Your task to perform on an android device: stop showing notifications on the lock screen Image 0: 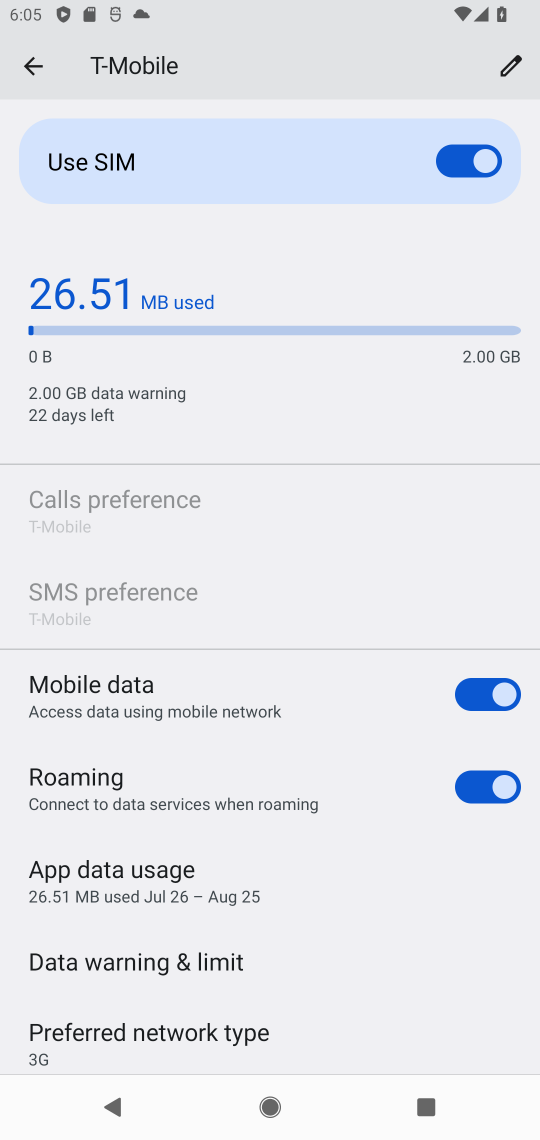
Step 0: press home button
Your task to perform on an android device: stop showing notifications on the lock screen Image 1: 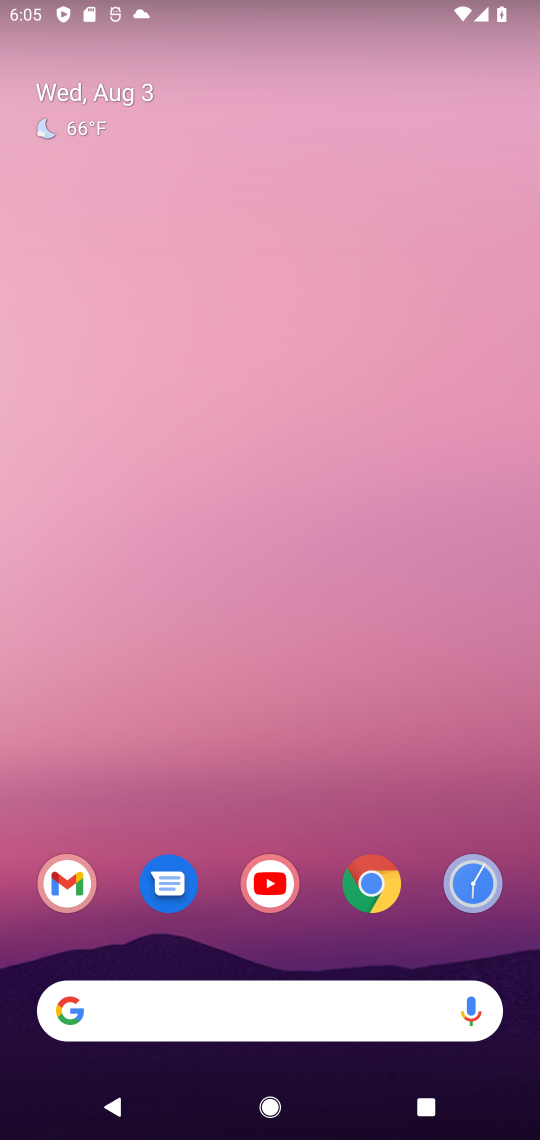
Step 1: drag from (228, 986) to (242, 353)
Your task to perform on an android device: stop showing notifications on the lock screen Image 2: 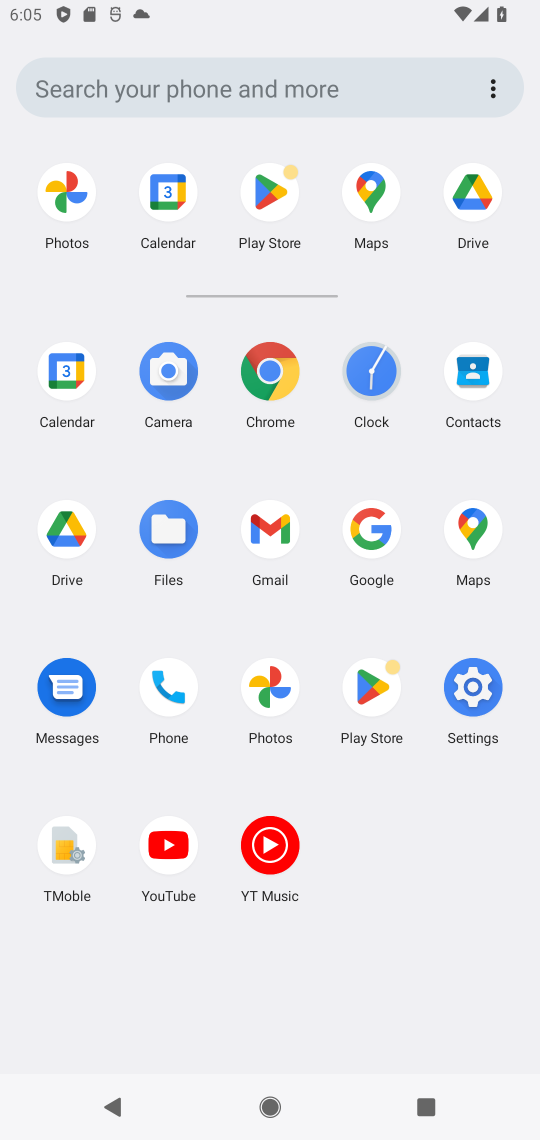
Step 2: click (451, 688)
Your task to perform on an android device: stop showing notifications on the lock screen Image 3: 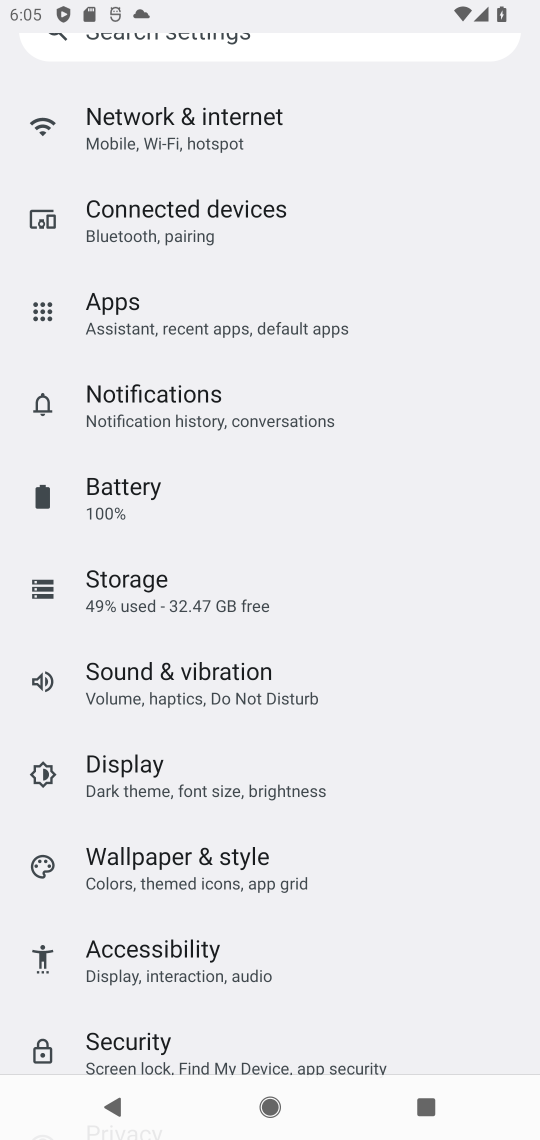
Step 3: drag from (252, 102) to (283, 639)
Your task to perform on an android device: stop showing notifications on the lock screen Image 4: 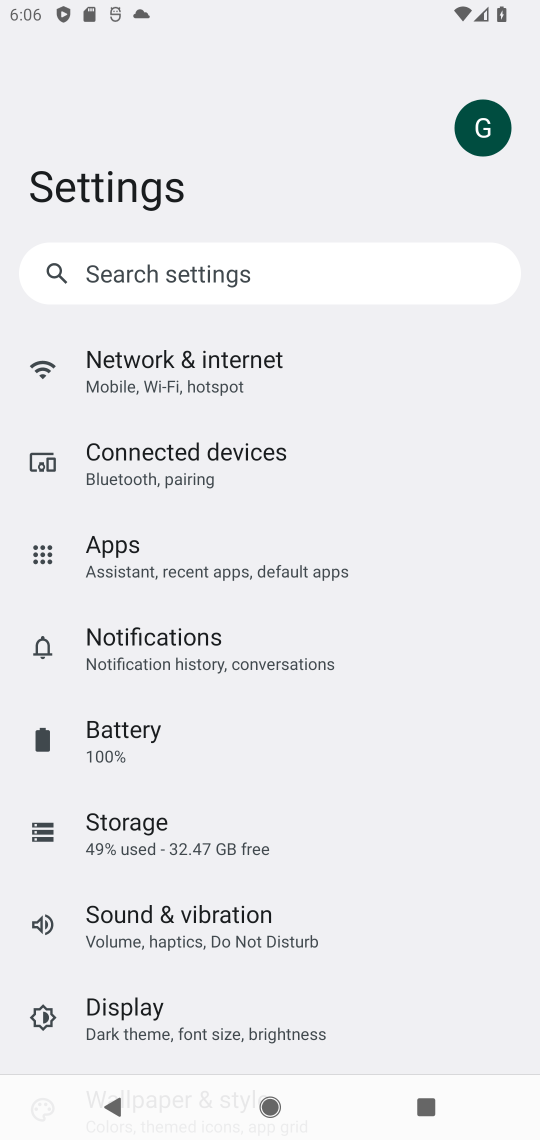
Step 4: drag from (135, 1010) to (135, 461)
Your task to perform on an android device: stop showing notifications on the lock screen Image 5: 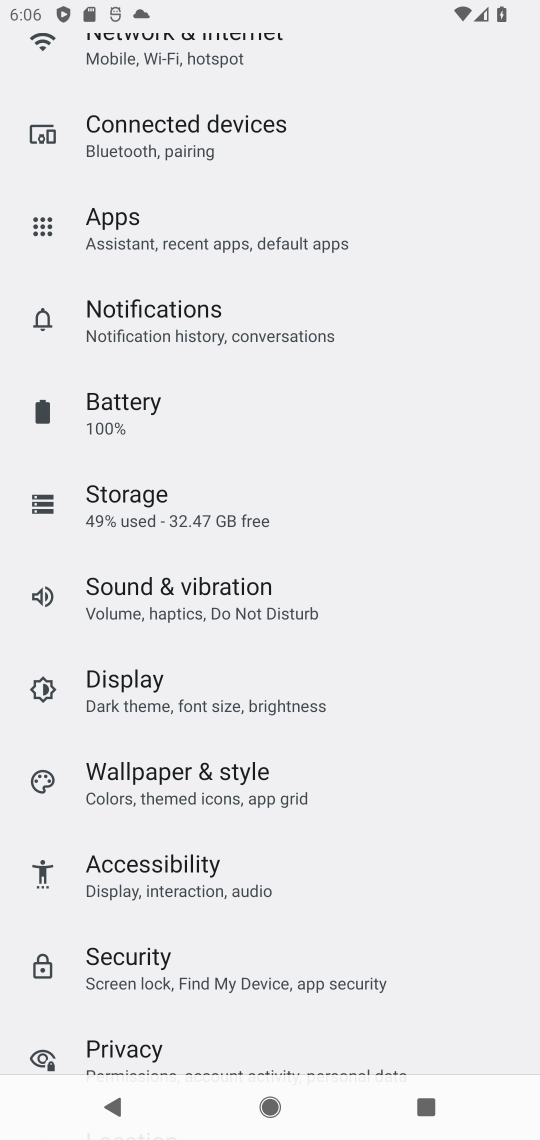
Step 5: click (116, 1037)
Your task to perform on an android device: stop showing notifications on the lock screen Image 6: 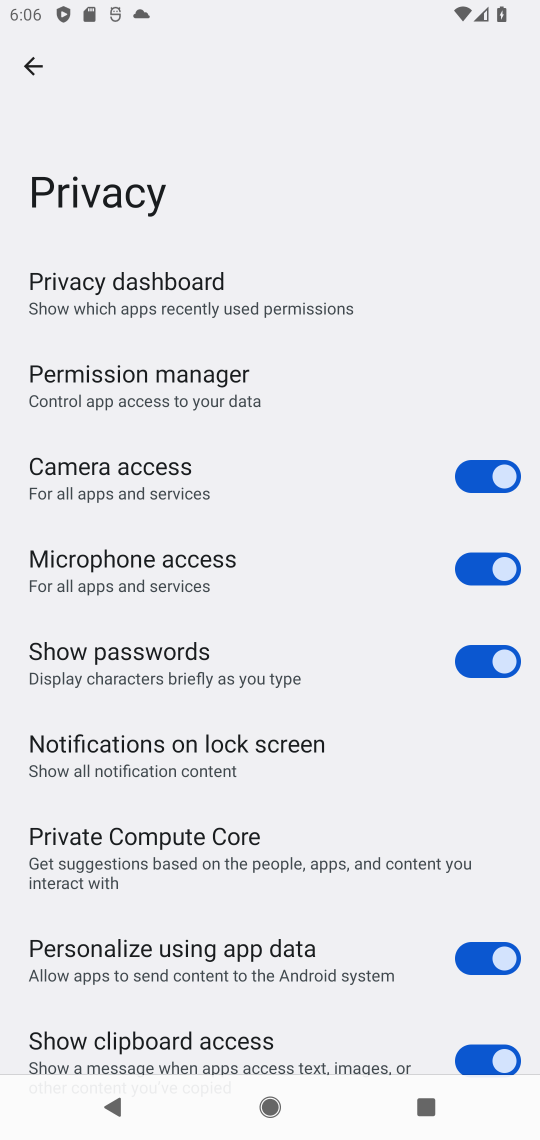
Step 6: click (124, 759)
Your task to perform on an android device: stop showing notifications on the lock screen Image 7: 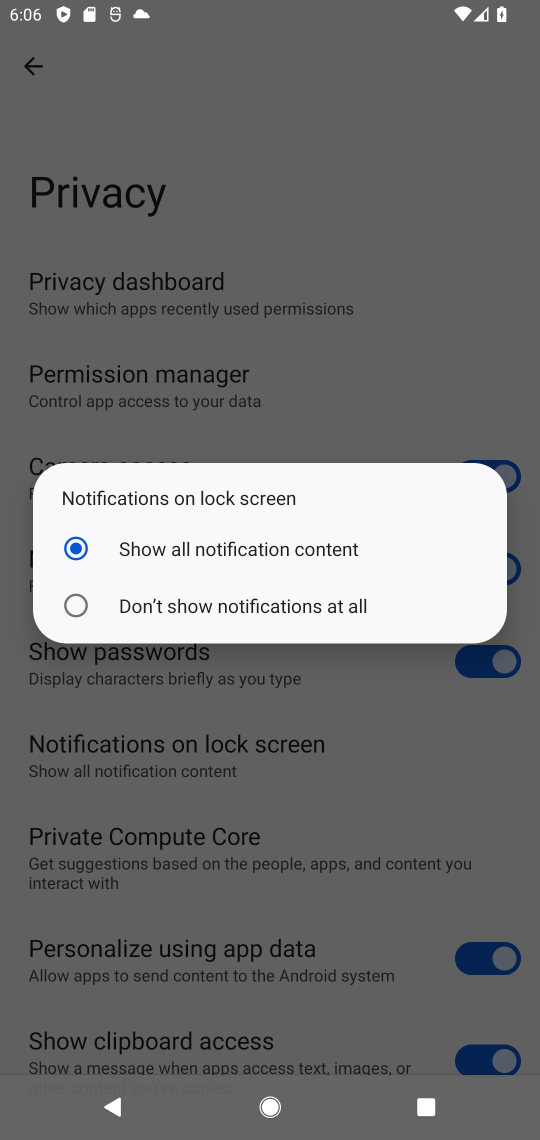
Step 7: click (161, 605)
Your task to perform on an android device: stop showing notifications on the lock screen Image 8: 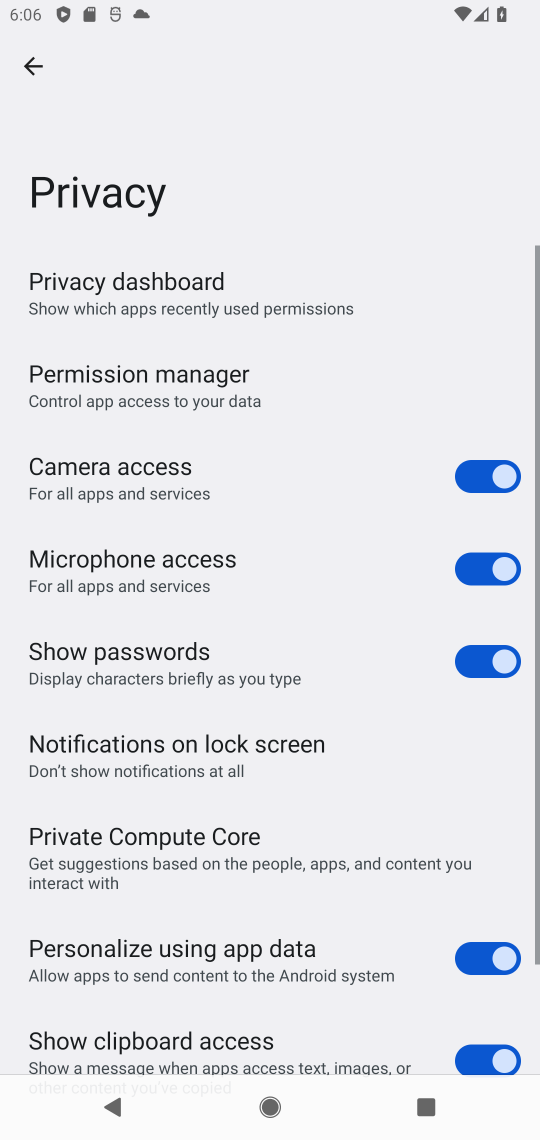
Step 8: task complete